Your task to perform on an android device: choose inbox layout in the gmail app Image 0: 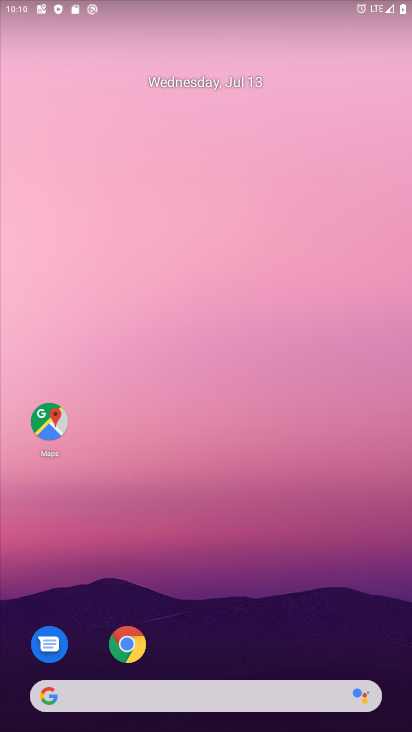
Step 0: drag from (212, 718) to (228, 134)
Your task to perform on an android device: choose inbox layout in the gmail app Image 1: 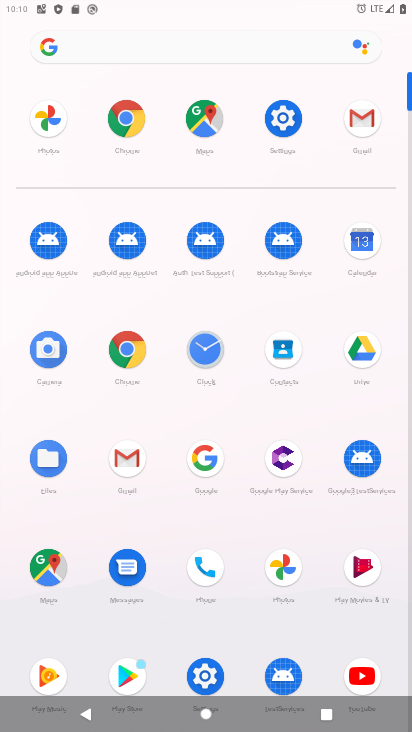
Step 1: click (124, 465)
Your task to perform on an android device: choose inbox layout in the gmail app Image 2: 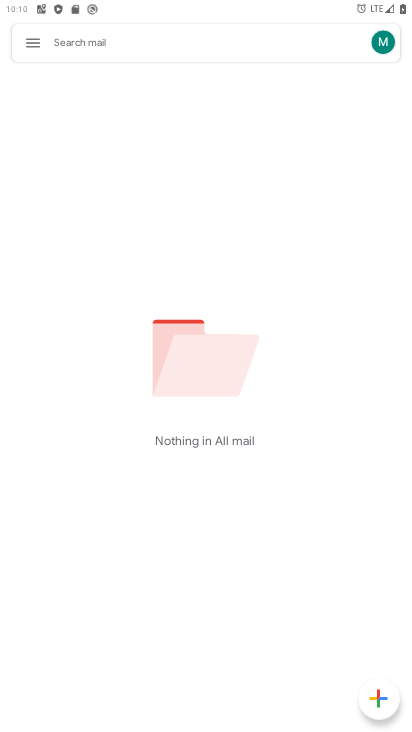
Step 2: click (28, 46)
Your task to perform on an android device: choose inbox layout in the gmail app Image 3: 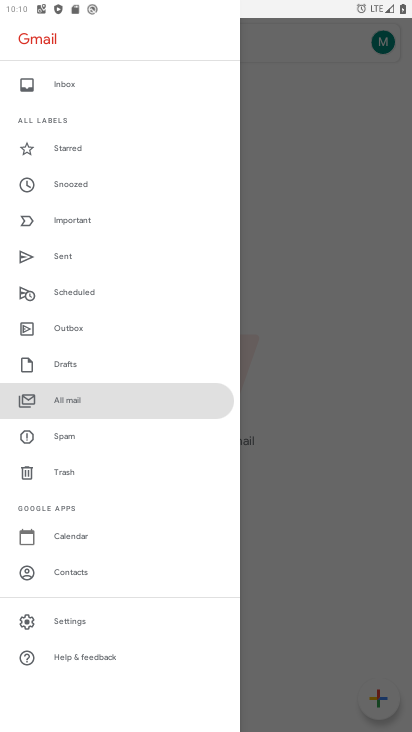
Step 3: click (69, 621)
Your task to perform on an android device: choose inbox layout in the gmail app Image 4: 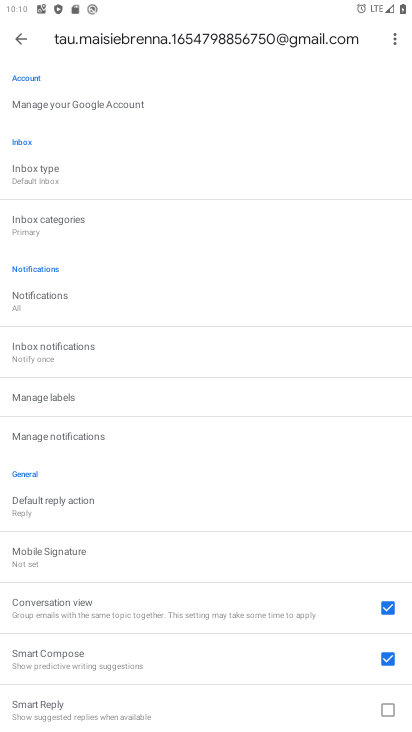
Step 4: click (40, 177)
Your task to perform on an android device: choose inbox layout in the gmail app Image 5: 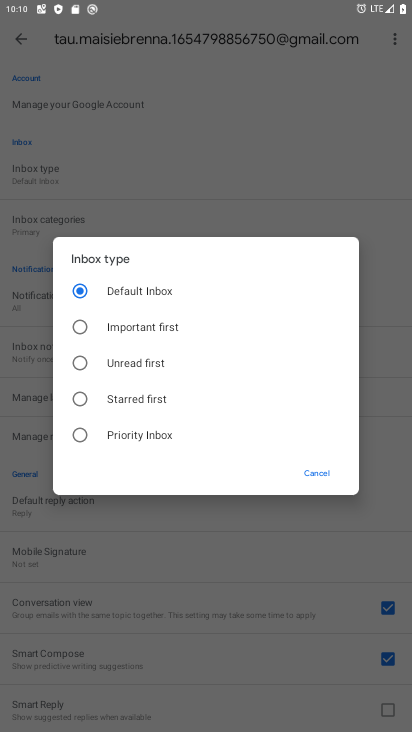
Step 5: click (80, 402)
Your task to perform on an android device: choose inbox layout in the gmail app Image 6: 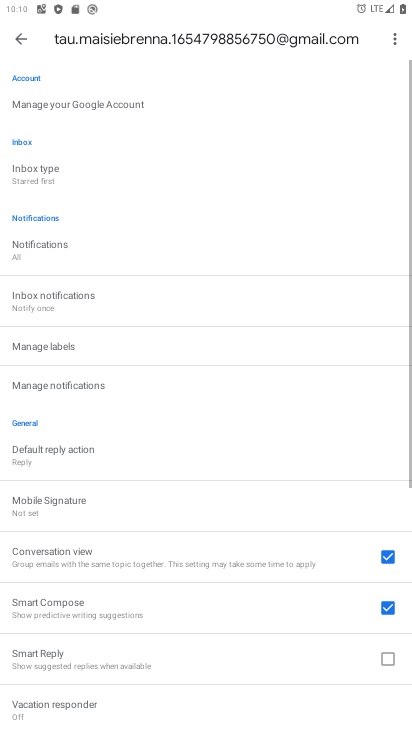
Step 6: task complete